Your task to perform on an android device: Open Yahoo.com Image 0: 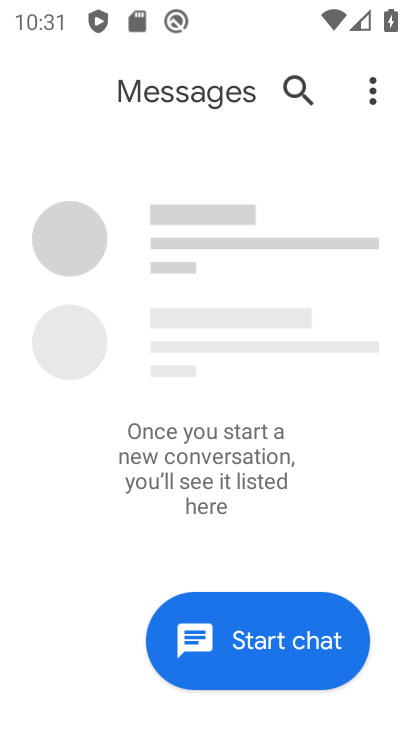
Step 0: press back button
Your task to perform on an android device: Open Yahoo.com Image 1: 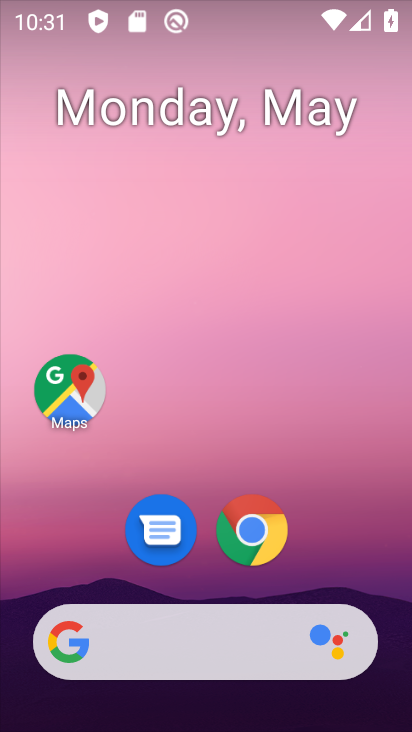
Step 1: click (252, 530)
Your task to perform on an android device: Open Yahoo.com Image 2: 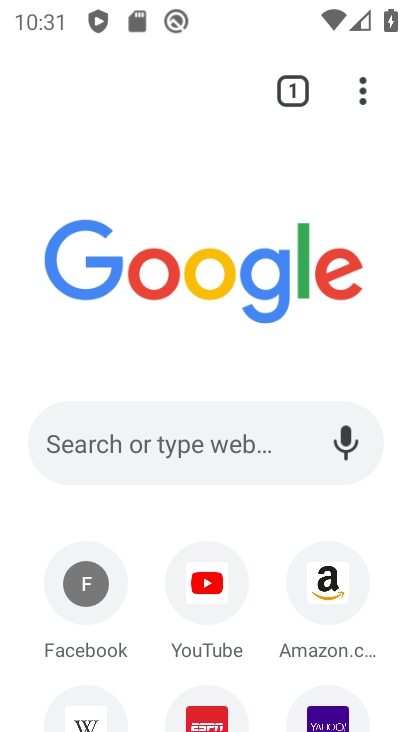
Step 2: click (162, 429)
Your task to perform on an android device: Open Yahoo.com Image 3: 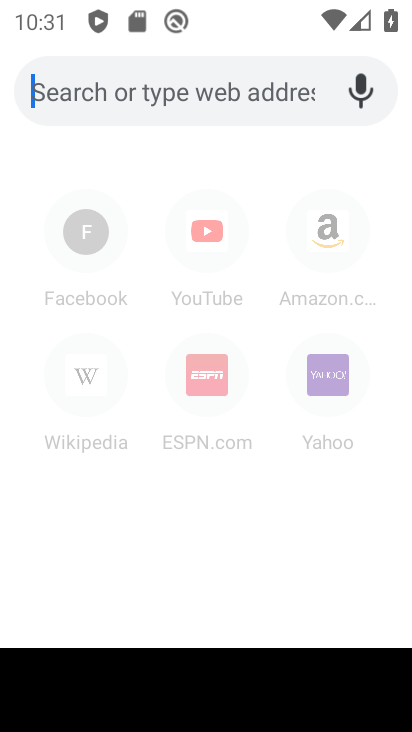
Step 3: type "Yahoo.com"
Your task to perform on an android device: Open Yahoo.com Image 4: 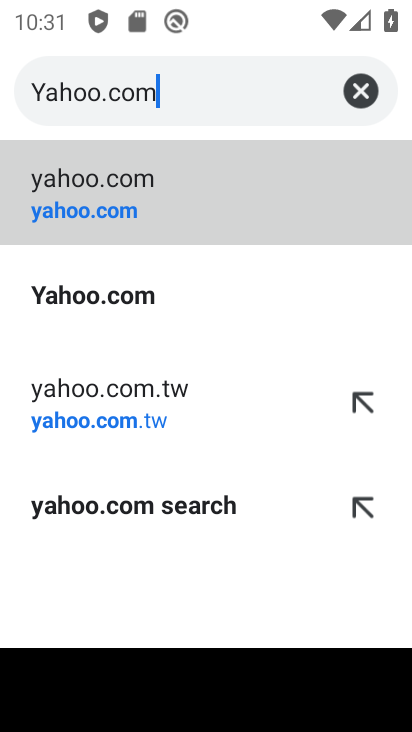
Step 4: click (117, 292)
Your task to perform on an android device: Open Yahoo.com Image 5: 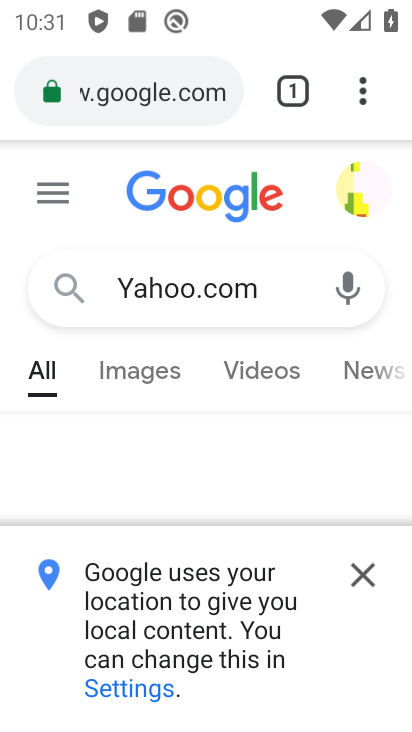
Step 5: click (358, 568)
Your task to perform on an android device: Open Yahoo.com Image 6: 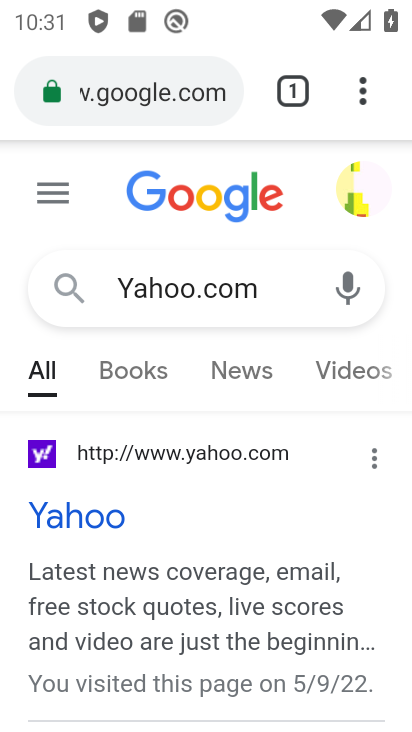
Step 6: click (72, 507)
Your task to perform on an android device: Open Yahoo.com Image 7: 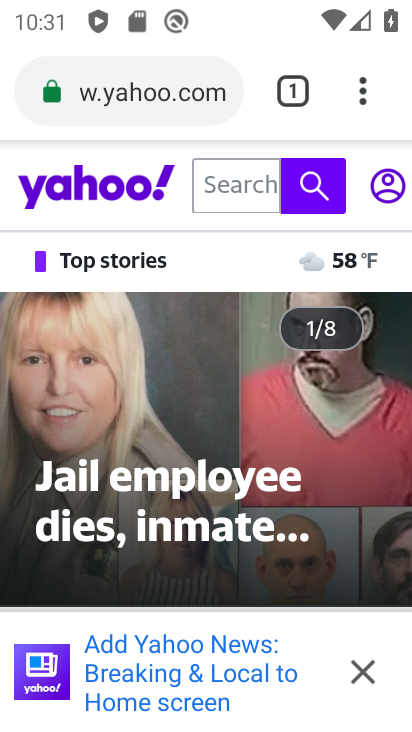
Step 7: task complete